Your task to perform on an android device: turn on wifi Image 0: 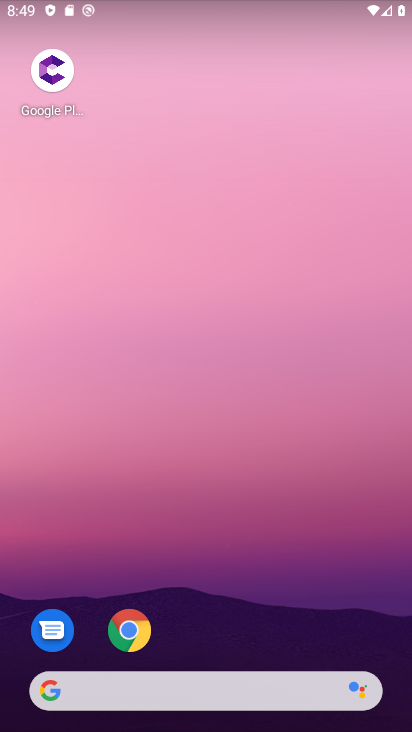
Step 0: drag from (152, 684) to (252, 189)
Your task to perform on an android device: turn on wifi Image 1: 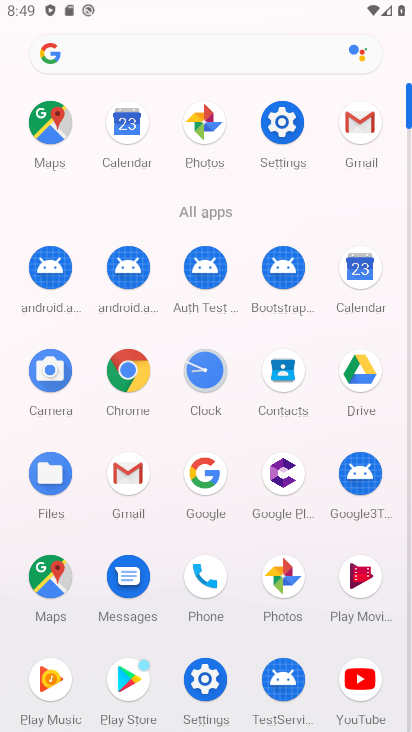
Step 1: click (280, 128)
Your task to perform on an android device: turn on wifi Image 2: 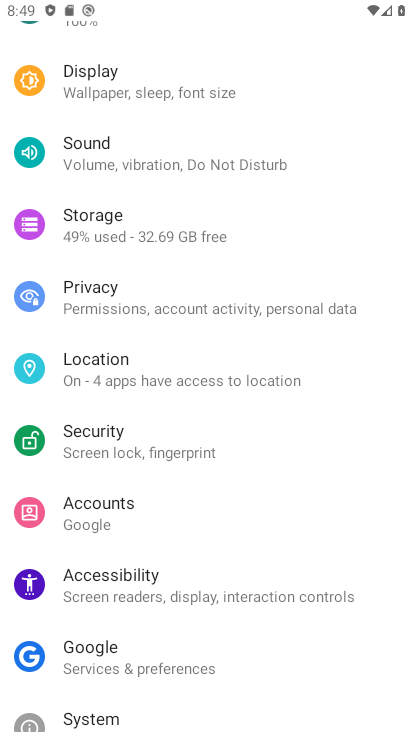
Step 2: drag from (165, 76) to (189, 474)
Your task to perform on an android device: turn on wifi Image 3: 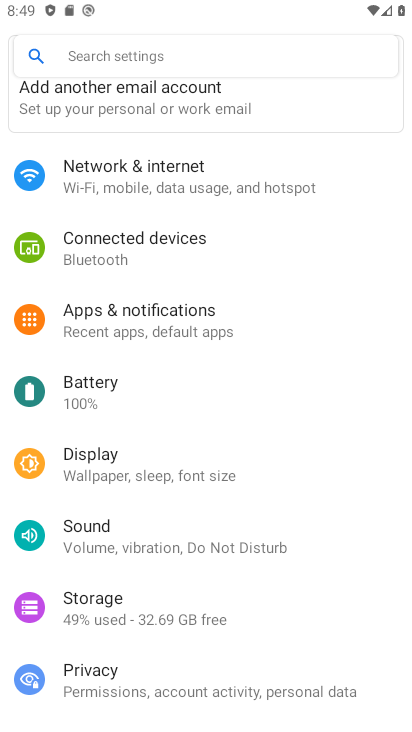
Step 3: click (186, 167)
Your task to perform on an android device: turn on wifi Image 4: 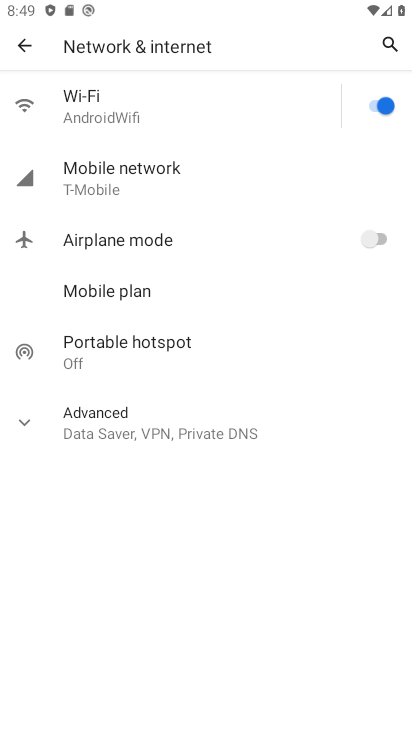
Step 4: task complete